Your task to perform on an android device: check the backup settings in the google photos Image 0: 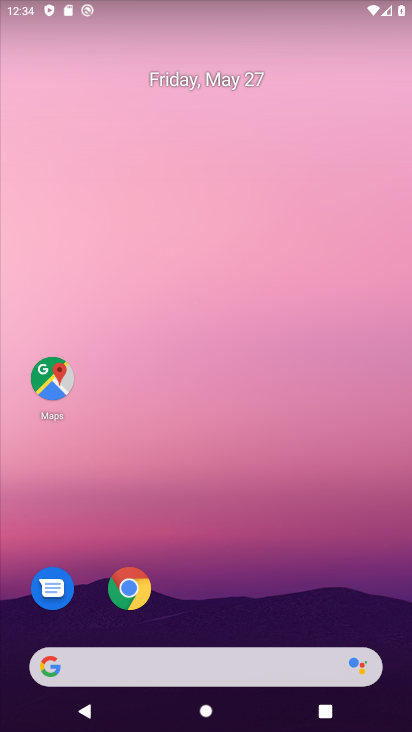
Step 0: drag from (202, 620) to (168, 12)
Your task to perform on an android device: check the backup settings in the google photos Image 1: 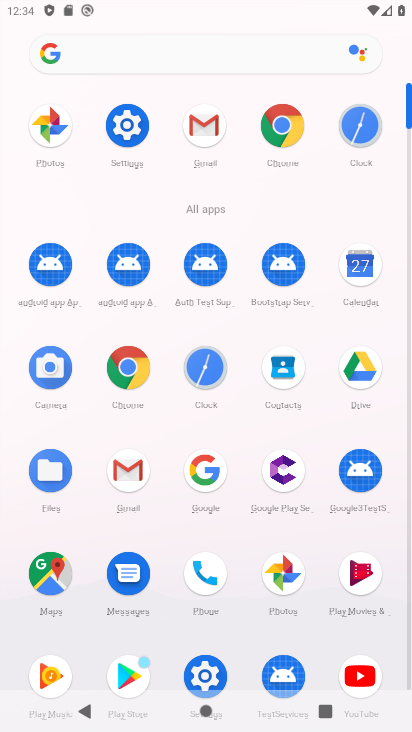
Step 1: click (280, 577)
Your task to perform on an android device: check the backup settings in the google photos Image 2: 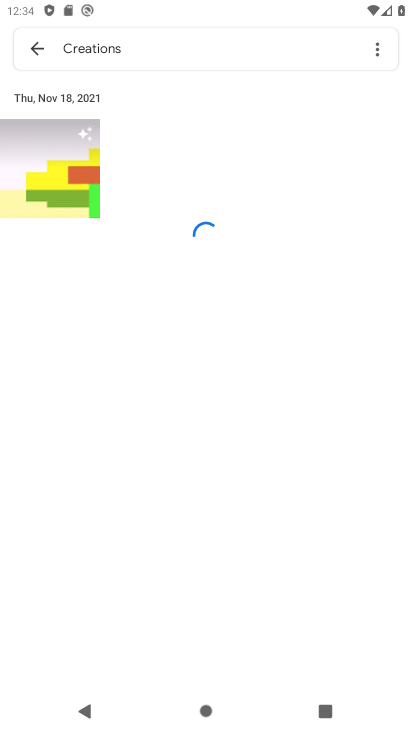
Step 2: click (26, 50)
Your task to perform on an android device: check the backup settings in the google photos Image 3: 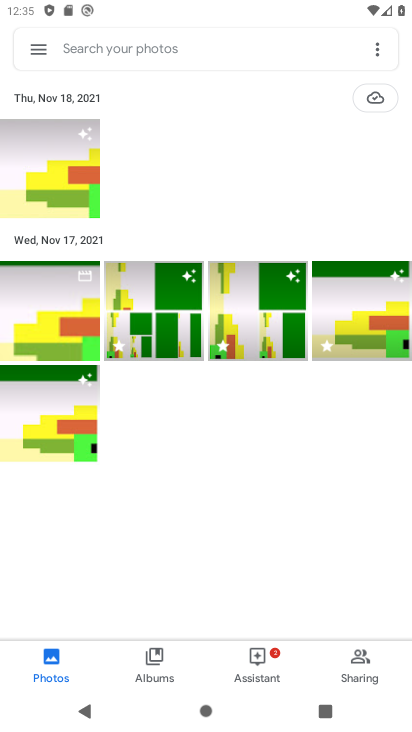
Step 3: click (40, 39)
Your task to perform on an android device: check the backup settings in the google photos Image 4: 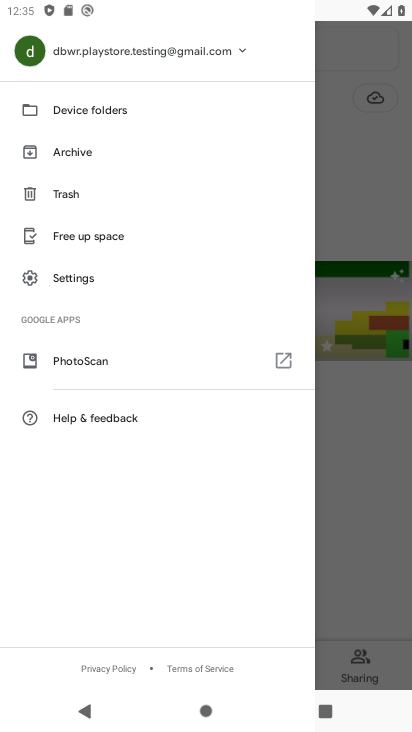
Step 4: click (78, 279)
Your task to perform on an android device: check the backup settings in the google photos Image 5: 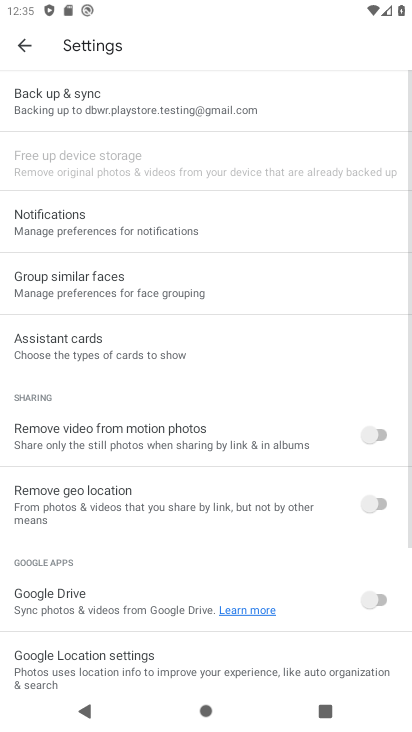
Step 5: click (76, 106)
Your task to perform on an android device: check the backup settings in the google photos Image 6: 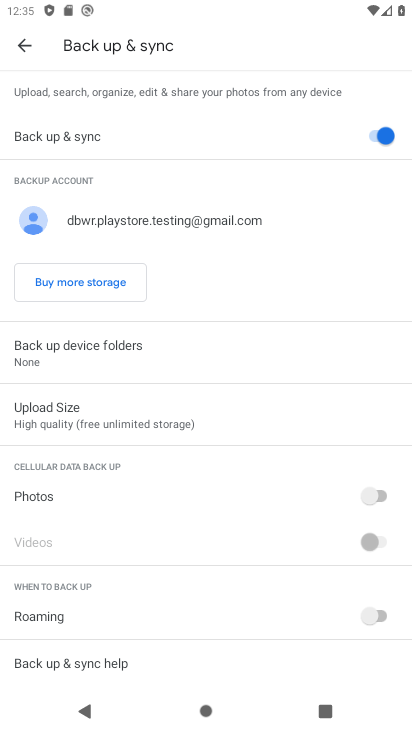
Step 6: task complete